Your task to perform on an android device: Open Chrome and go to settings Image 0: 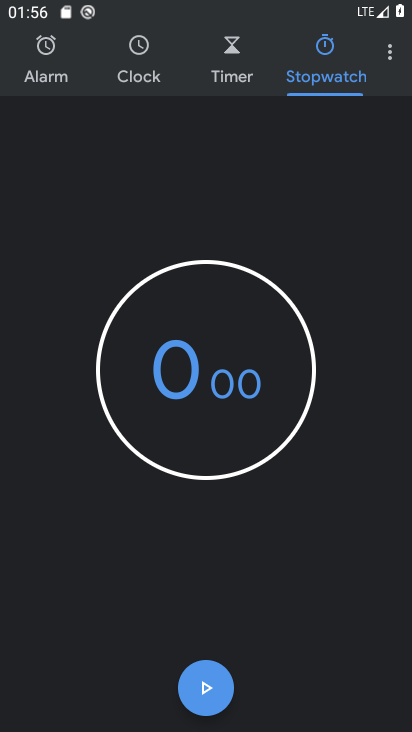
Step 0: press home button
Your task to perform on an android device: Open Chrome and go to settings Image 1: 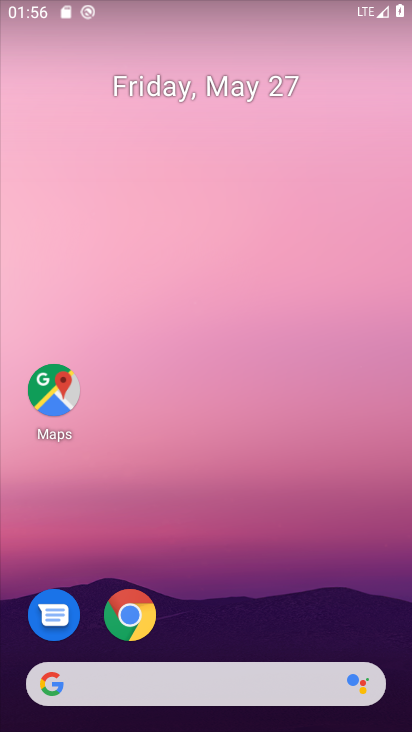
Step 1: drag from (373, 615) to (344, 186)
Your task to perform on an android device: Open Chrome and go to settings Image 2: 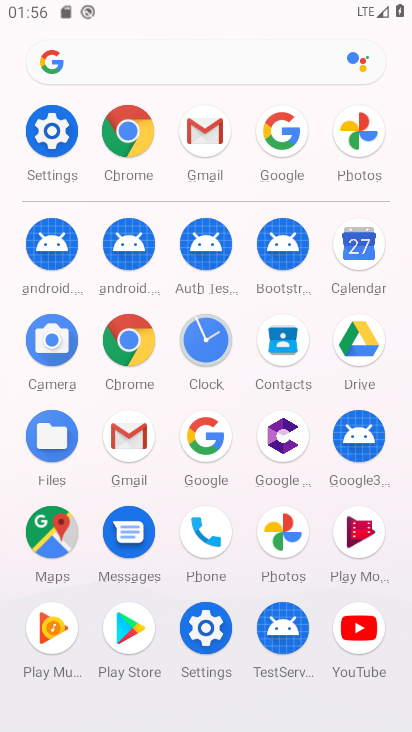
Step 2: click (130, 348)
Your task to perform on an android device: Open Chrome and go to settings Image 3: 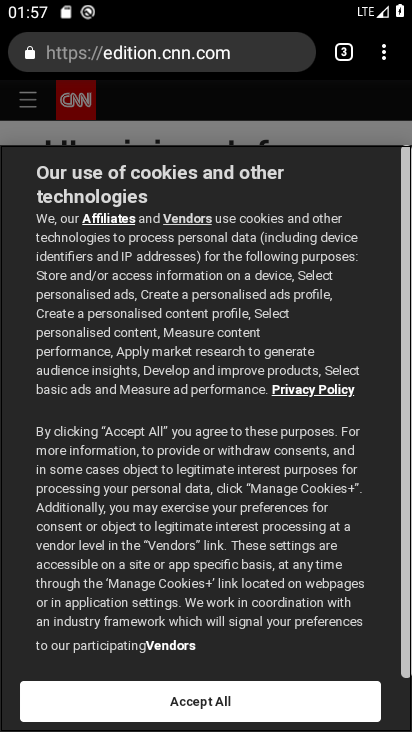
Step 3: click (387, 57)
Your task to perform on an android device: Open Chrome and go to settings Image 4: 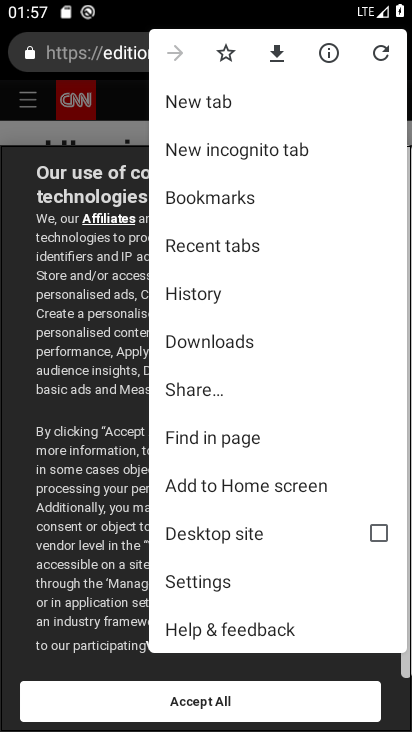
Step 4: drag from (311, 536) to (324, 427)
Your task to perform on an android device: Open Chrome and go to settings Image 5: 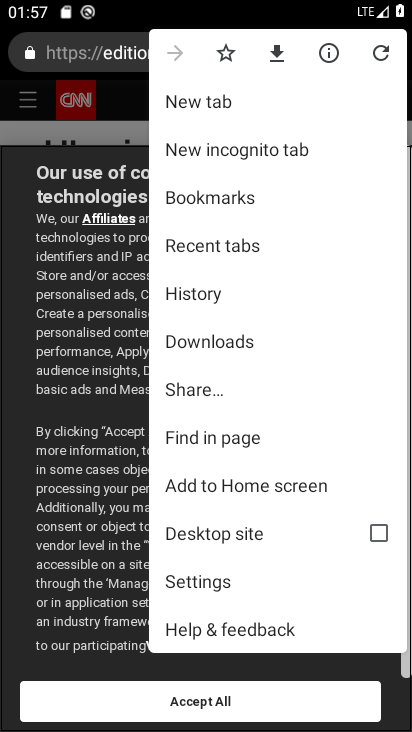
Step 5: click (204, 582)
Your task to perform on an android device: Open Chrome and go to settings Image 6: 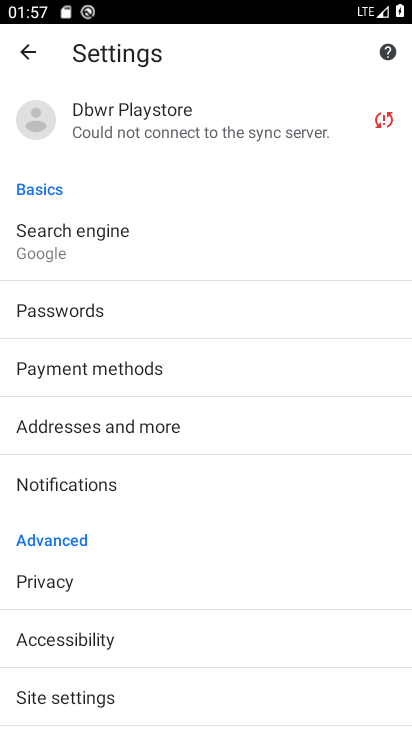
Step 6: task complete